Your task to perform on an android device: Empty the shopping cart on bestbuy.com. Search for asus rog on bestbuy.com, select the first entry, add it to the cart, then select checkout. Image 0: 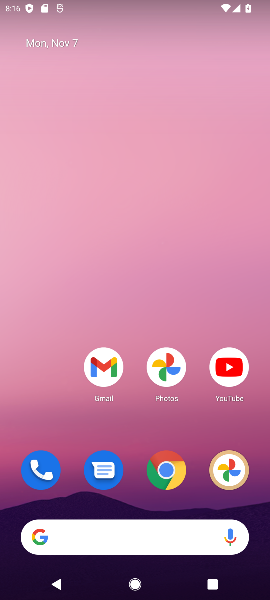
Step 0: click (171, 467)
Your task to perform on an android device: Empty the shopping cart on bestbuy.com. Search for asus rog on bestbuy.com, select the first entry, add it to the cart, then select checkout. Image 1: 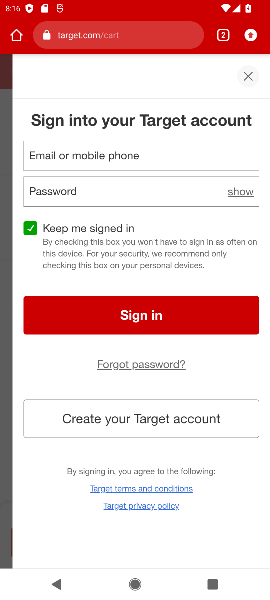
Step 1: click (103, 31)
Your task to perform on an android device: Empty the shopping cart on bestbuy.com. Search for asus rog on bestbuy.com, select the first entry, add it to the cart, then select checkout. Image 2: 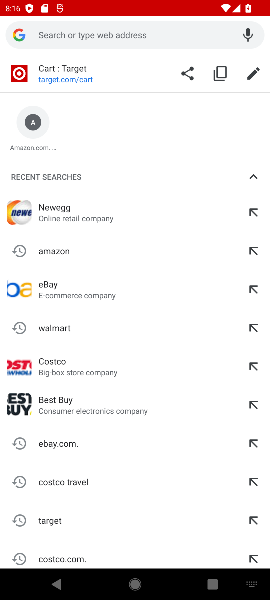
Step 2: type "bestbuy"
Your task to perform on an android device: Empty the shopping cart on bestbuy.com. Search for asus rog on bestbuy.com, select the first entry, add it to the cart, then select checkout. Image 3: 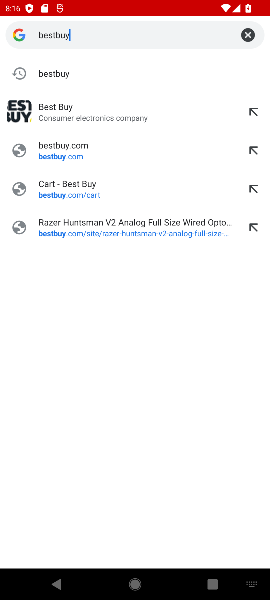
Step 3: click (27, 108)
Your task to perform on an android device: Empty the shopping cart on bestbuy.com. Search for asus rog on bestbuy.com, select the first entry, add it to the cart, then select checkout. Image 4: 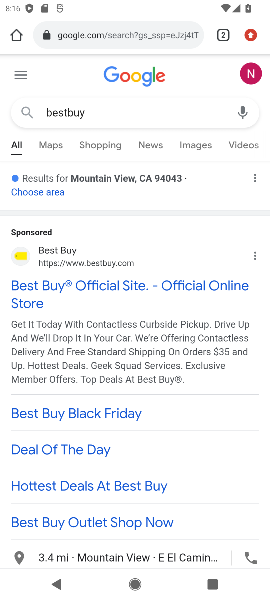
Step 4: click (39, 274)
Your task to perform on an android device: Empty the shopping cart on bestbuy.com. Search for asus rog on bestbuy.com, select the first entry, add it to the cart, then select checkout. Image 5: 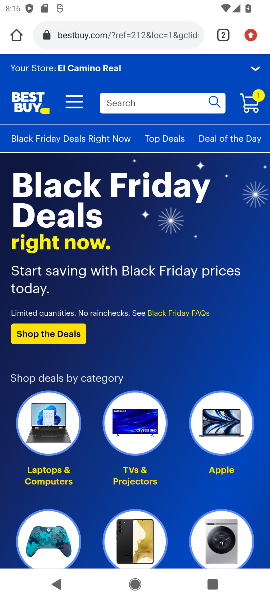
Step 5: click (261, 102)
Your task to perform on an android device: Empty the shopping cart on bestbuy.com. Search for asus rog on bestbuy.com, select the first entry, add it to the cart, then select checkout. Image 6: 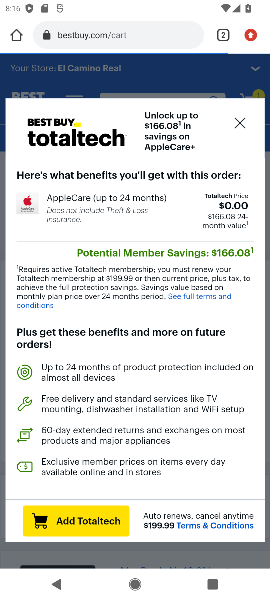
Step 6: click (246, 128)
Your task to perform on an android device: Empty the shopping cart on bestbuy.com. Search for asus rog on bestbuy.com, select the first entry, add it to the cart, then select checkout. Image 7: 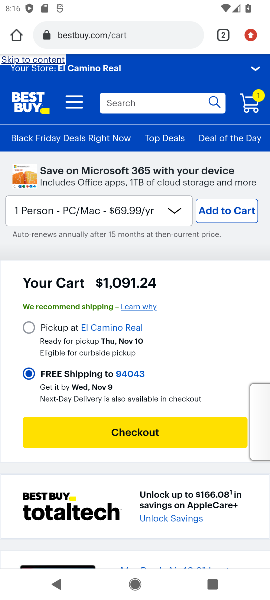
Step 7: drag from (173, 347) to (158, 75)
Your task to perform on an android device: Empty the shopping cart on bestbuy.com. Search for asus rog on bestbuy.com, select the first entry, add it to the cart, then select checkout. Image 8: 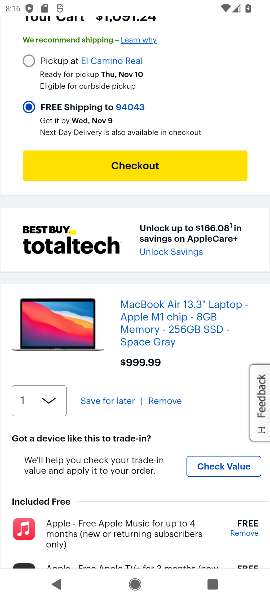
Step 8: click (167, 401)
Your task to perform on an android device: Empty the shopping cart on bestbuy.com. Search for asus rog on bestbuy.com, select the first entry, add it to the cart, then select checkout. Image 9: 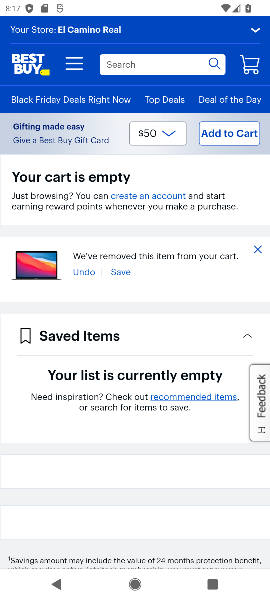
Step 9: task complete